Your task to perform on an android device: Go to privacy settings Image 0: 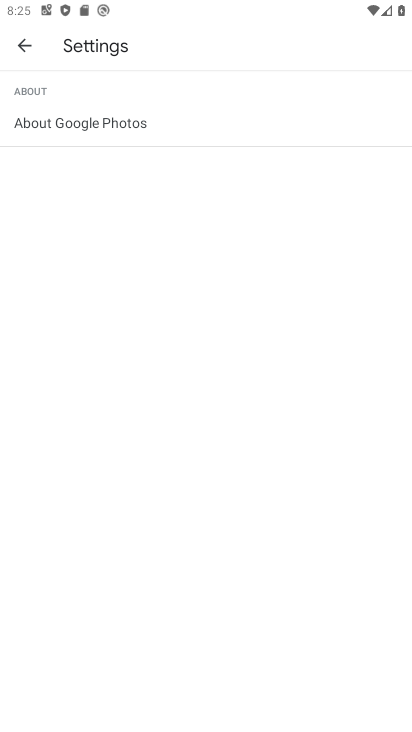
Step 0: press home button
Your task to perform on an android device: Go to privacy settings Image 1: 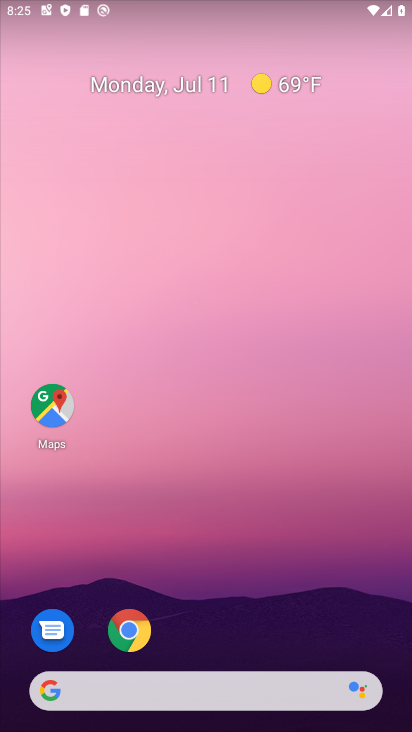
Step 1: drag from (206, 698) to (275, 71)
Your task to perform on an android device: Go to privacy settings Image 2: 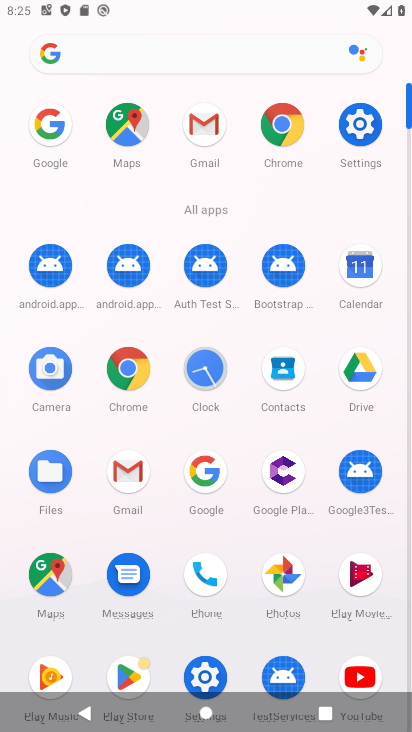
Step 2: click (365, 145)
Your task to perform on an android device: Go to privacy settings Image 3: 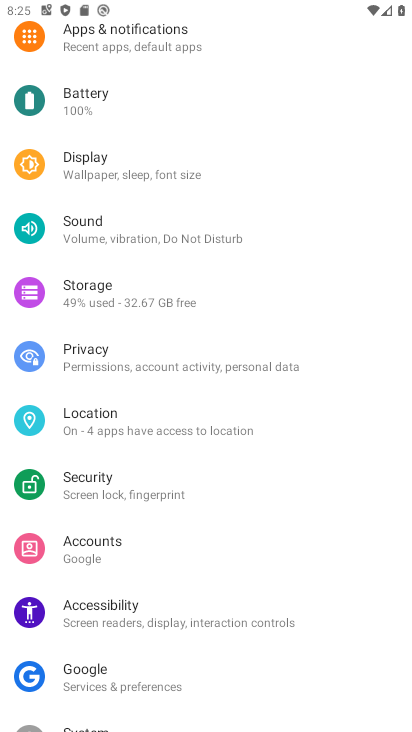
Step 3: click (117, 361)
Your task to perform on an android device: Go to privacy settings Image 4: 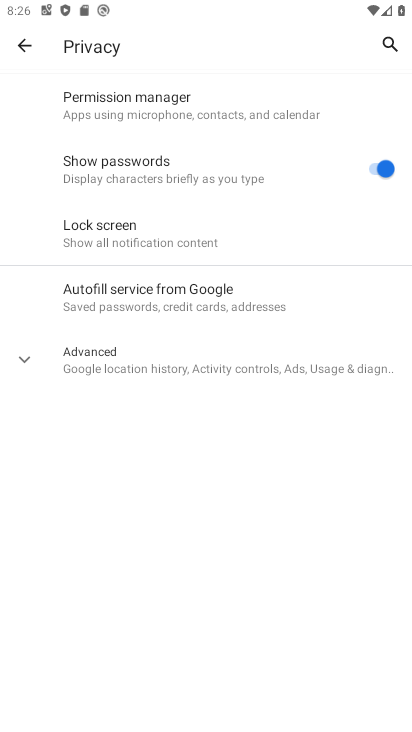
Step 4: task complete